Your task to perform on an android device: delete the emails in spam in the gmail app Image 0: 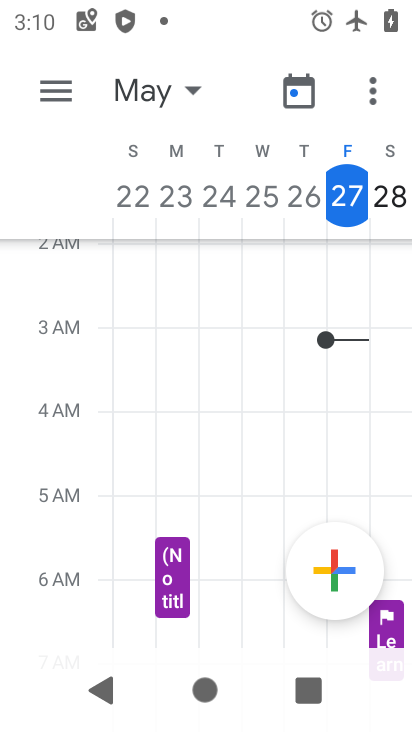
Step 0: press home button
Your task to perform on an android device: delete the emails in spam in the gmail app Image 1: 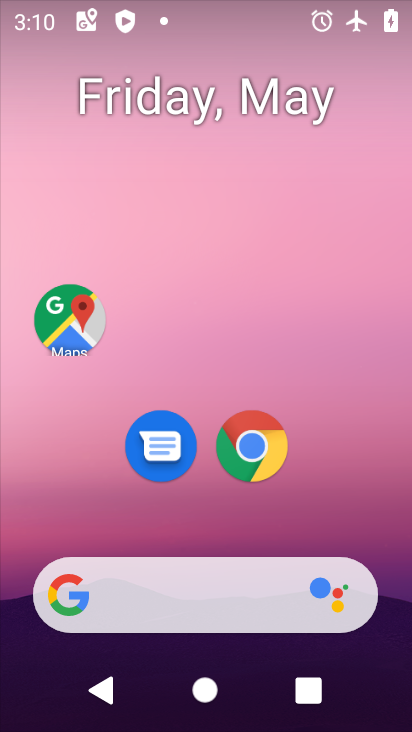
Step 1: drag from (378, 544) to (310, 124)
Your task to perform on an android device: delete the emails in spam in the gmail app Image 2: 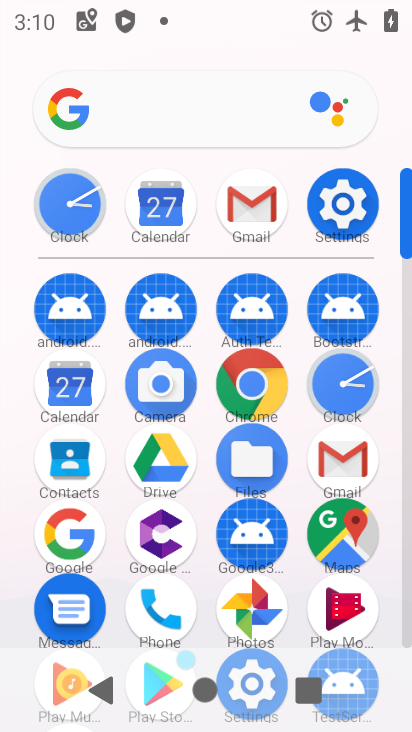
Step 2: click (264, 189)
Your task to perform on an android device: delete the emails in spam in the gmail app Image 3: 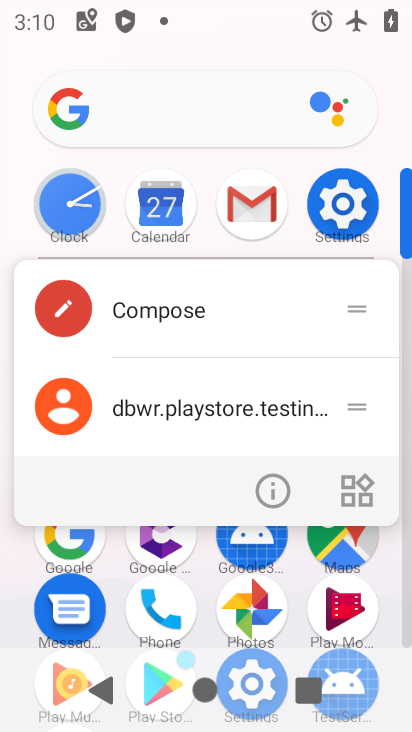
Step 3: click (264, 189)
Your task to perform on an android device: delete the emails in spam in the gmail app Image 4: 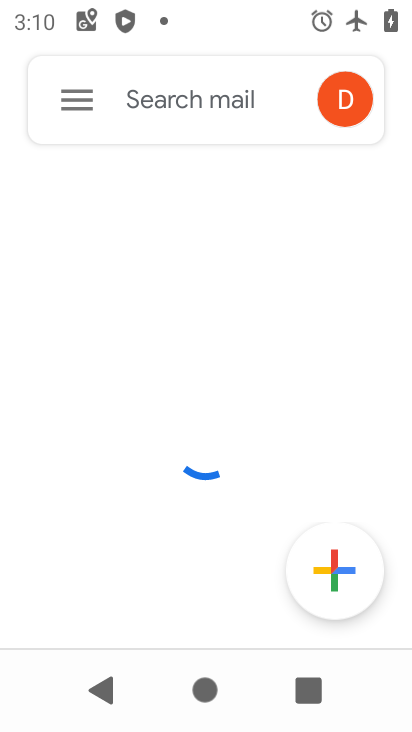
Step 4: click (71, 103)
Your task to perform on an android device: delete the emails in spam in the gmail app Image 5: 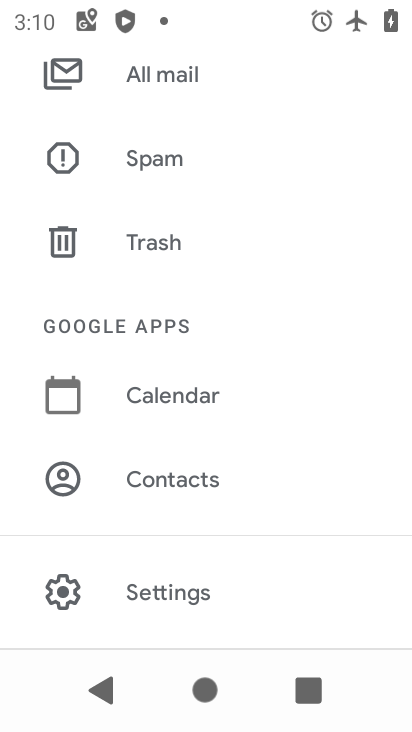
Step 5: click (120, 150)
Your task to perform on an android device: delete the emails in spam in the gmail app Image 6: 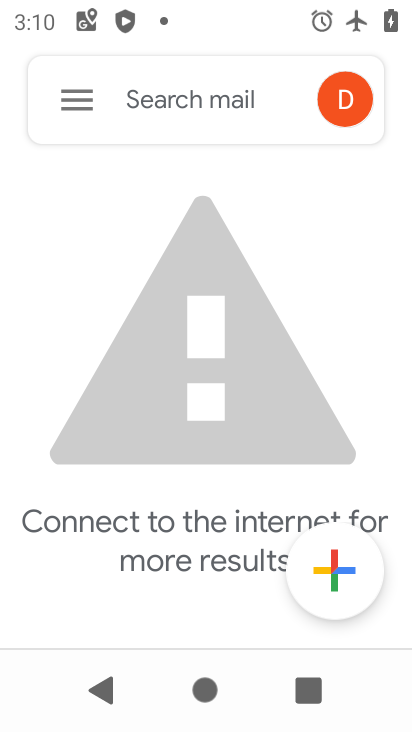
Step 6: task complete